Your task to perform on an android device: set the stopwatch Image 0: 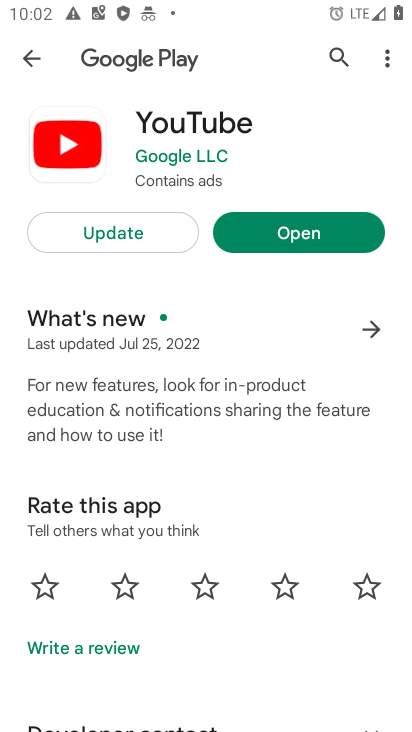
Step 0: press home button
Your task to perform on an android device: set the stopwatch Image 1: 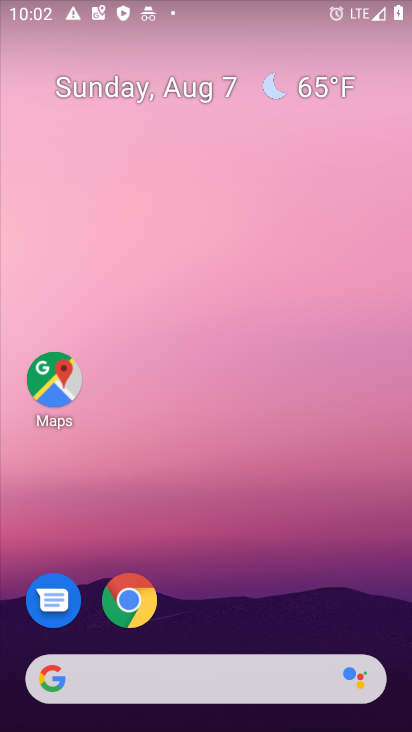
Step 1: drag from (200, 591) to (200, 47)
Your task to perform on an android device: set the stopwatch Image 2: 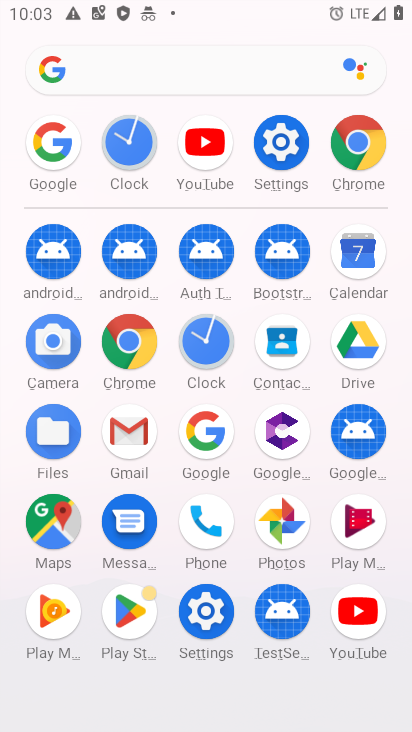
Step 2: click (201, 356)
Your task to perform on an android device: set the stopwatch Image 3: 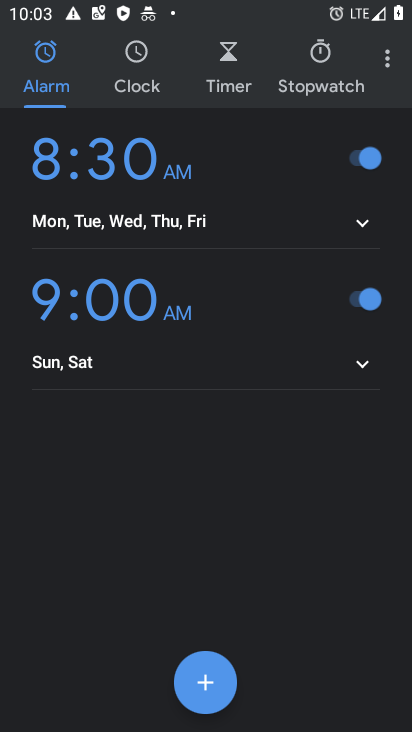
Step 3: click (321, 67)
Your task to perform on an android device: set the stopwatch Image 4: 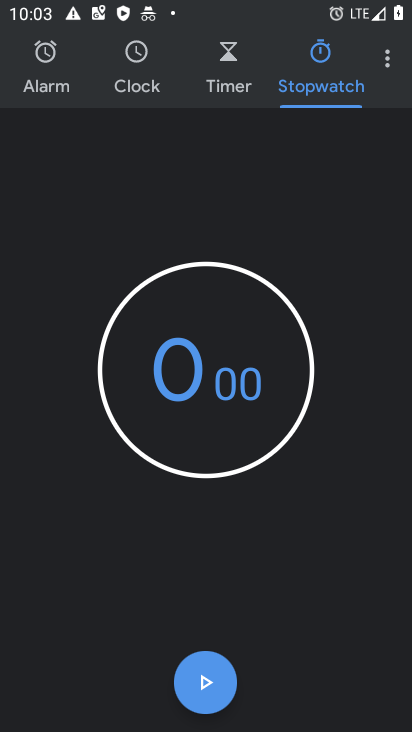
Step 4: click (204, 688)
Your task to perform on an android device: set the stopwatch Image 5: 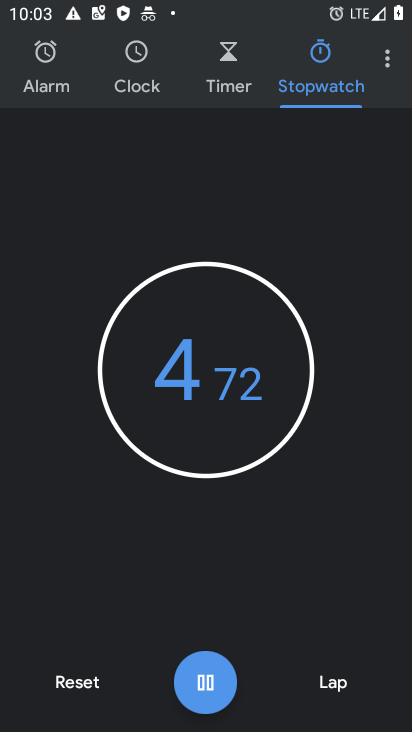
Step 5: click (204, 688)
Your task to perform on an android device: set the stopwatch Image 6: 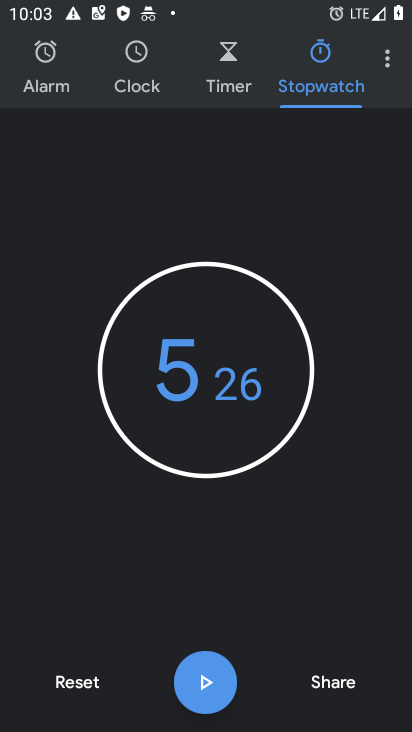
Step 6: task complete